Your task to perform on an android device: Open the stopwatch Image 0: 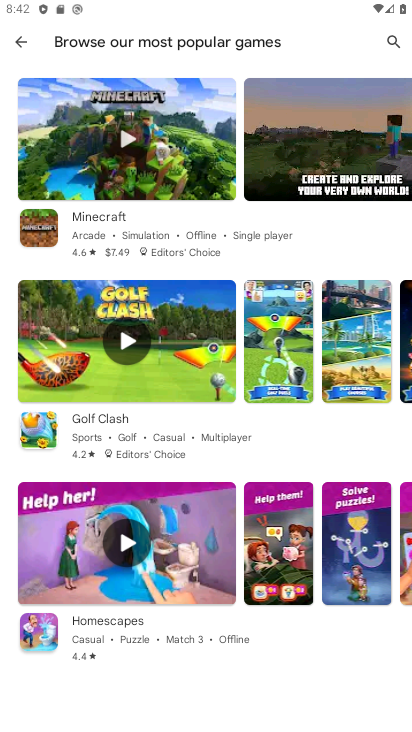
Step 0: press home button
Your task to perform on an android device: Open the stopwatch Image 1: 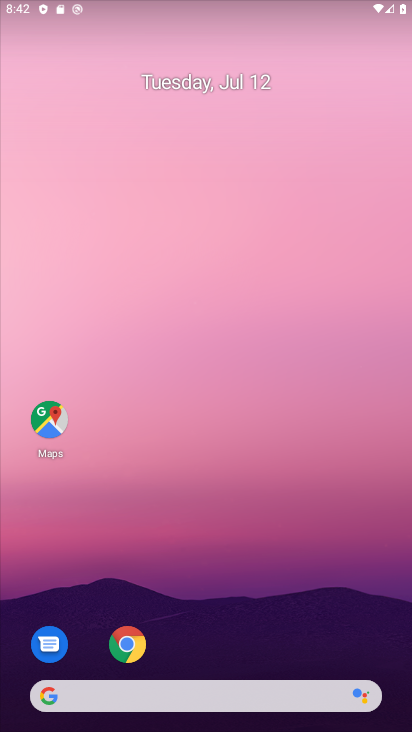
Step 1: drag from (206, 668) to (263, 196)
Your task to perform on an android device: Open the stopwatch Image 2: 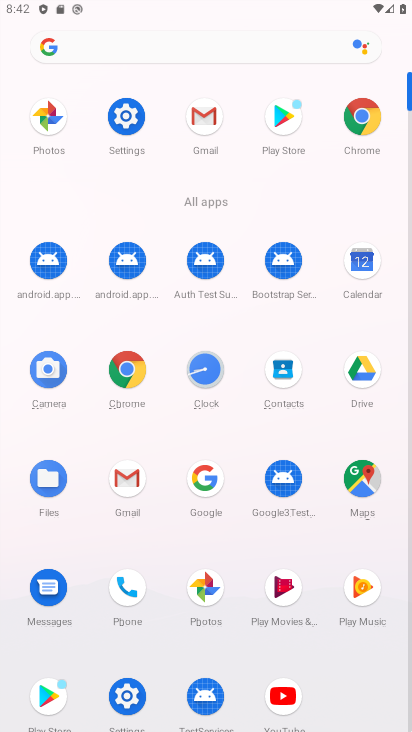
Step 2: click (214, 374)
Your task to perform on an android device: Open the stopwatch Image 3: 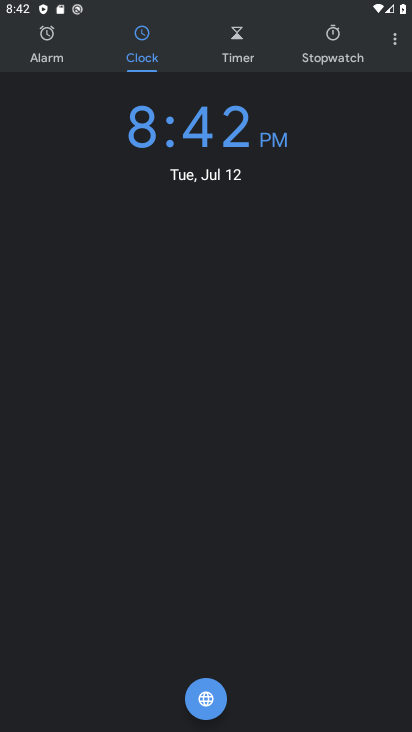
Step 3: click (340, 55)
Your task to perform on an android device: Open the stopwatch Image 4: 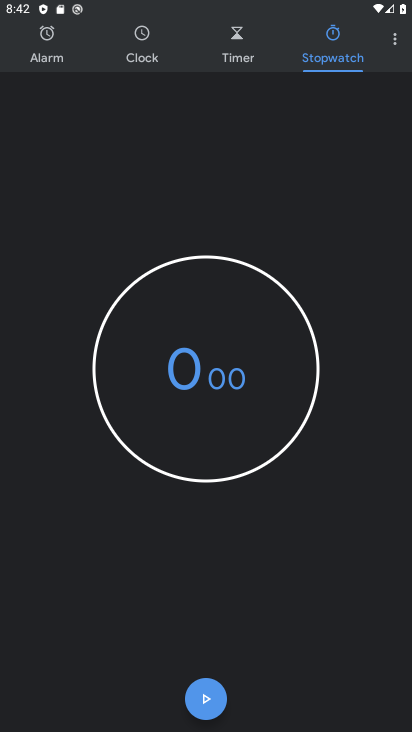
Step 4: task complete